Your task to perform on an android device: Go to Reddit.com Image 0: 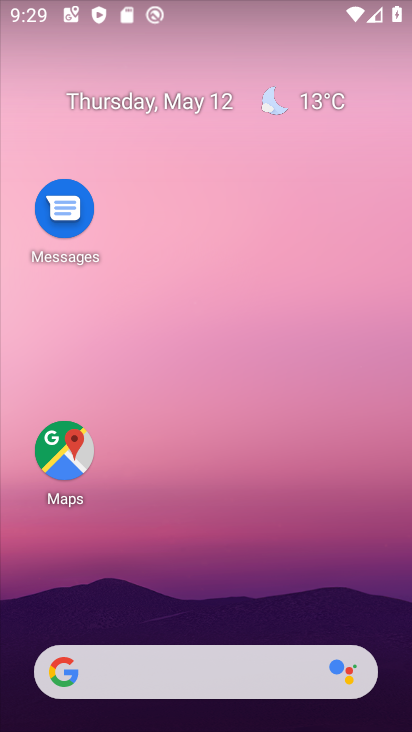
Step 0: drag from (195, 626) to (124, 19)
Your task to perform on an android device: Go to Reddit.com Image 1: 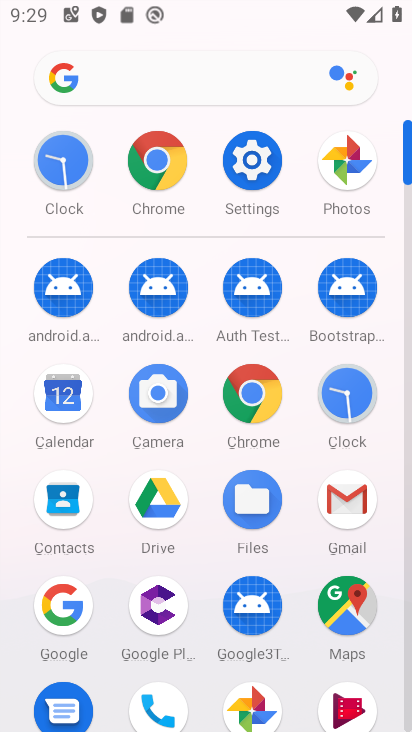
Step 1: click (151, 176)
Your task to perform on an android device: Go to Reddit.com Image 2: 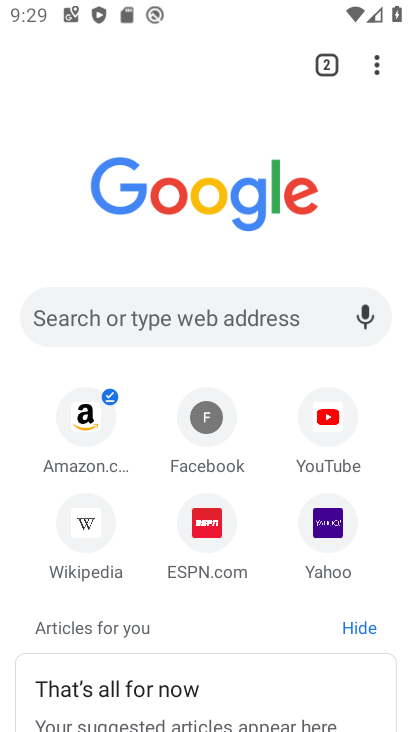
Step 2: click (176, 329)
Your task to perform on an android device: Go to Reddit.com Image 3: 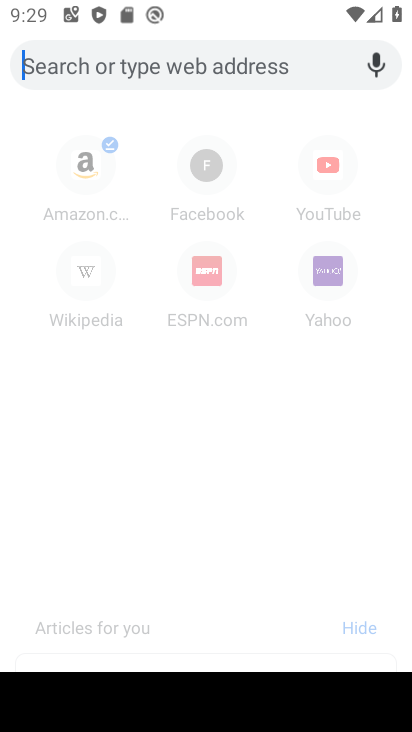
Step 3: type "reddit"
Your task to perform on an android device: Go to Reddit.com Image 4: 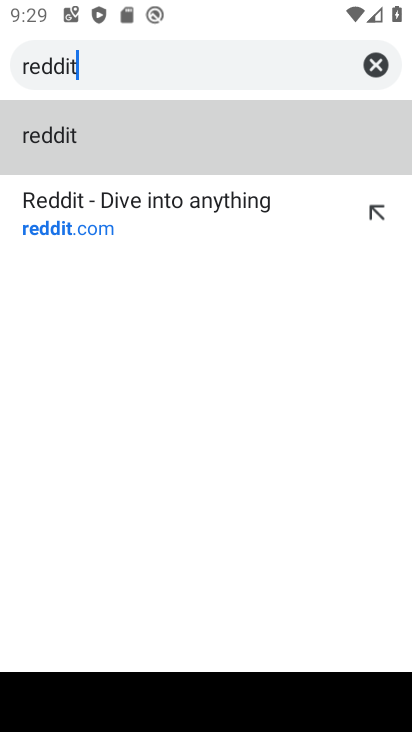
Step 4: type ""
Your task to perform on an android device: Go to Reddit.com Image 5: 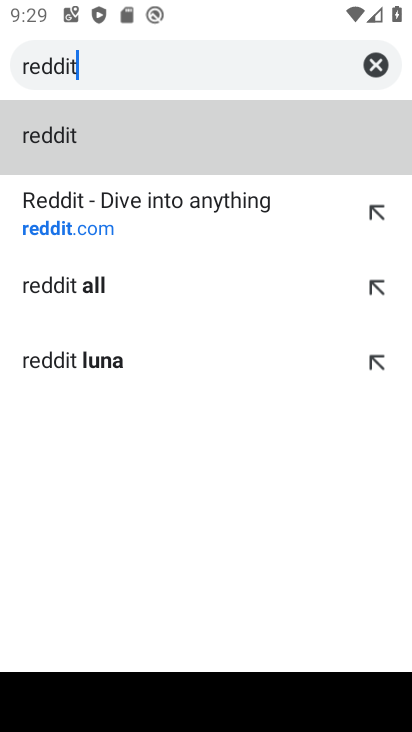
Step 5: click (160, 194)
Your task to perform on an android device: Go to Reddit.com Image 6: 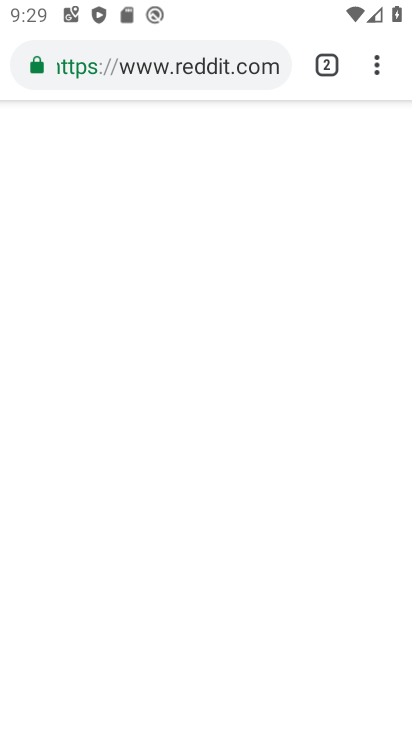
Step 6: task complete